Your task to perform on an android device: turn smart compose on in the gmail app Image 0: 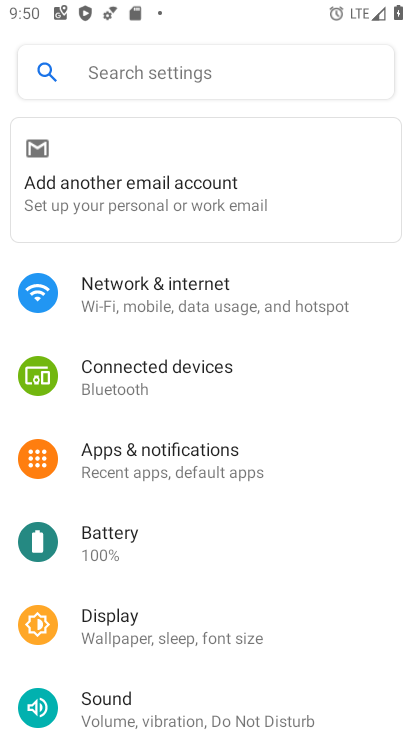
Step 0: press home button
Your task to perform on an android device: turn smart compose on in the gmail app Image 1: 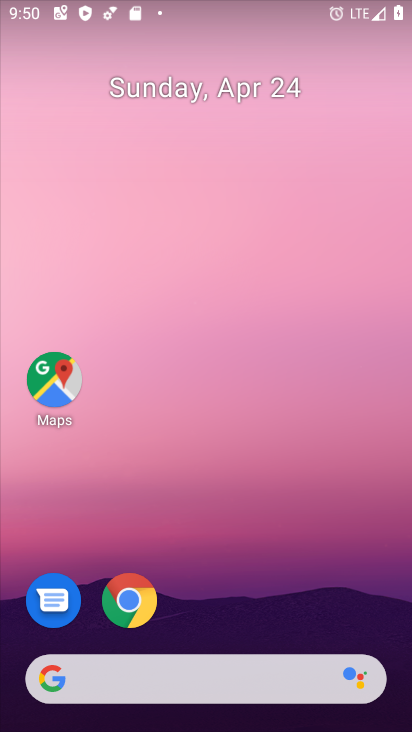
Step 1: drag from (214, 626) to (247, 6)
Your task to perform on an android device: turn smart compose on in the gmail app Image 2: 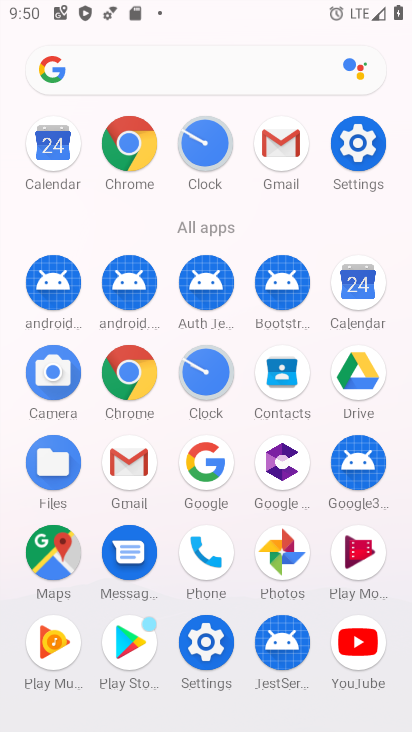
Step 2: click (119, 455)
Your task to perform on an android device: turn smart compose on in the gmail app Image 3: 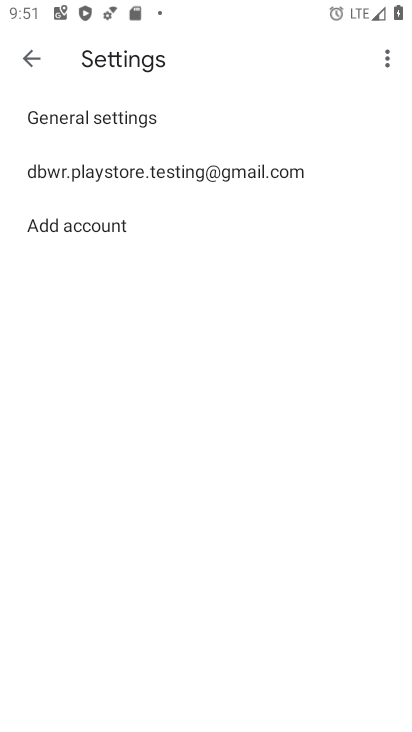
Step 3: click (127, 175)
Your task to perform on an android device: turn smart compose on in the gmail app Image 4: 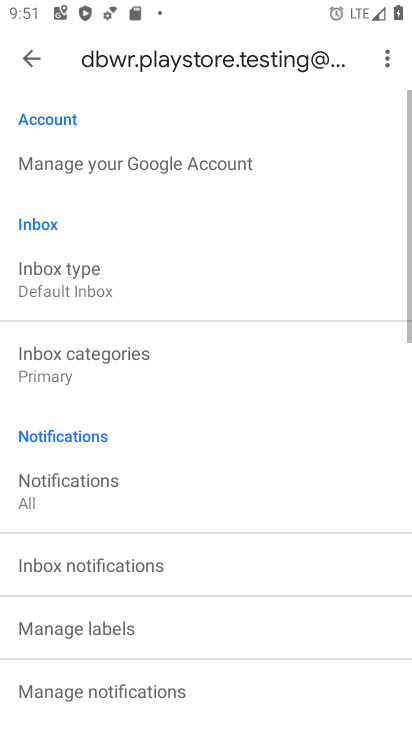
Step 4: task complete